Your task to perform on an android device: move a message to another label in the gmail app Image 0: 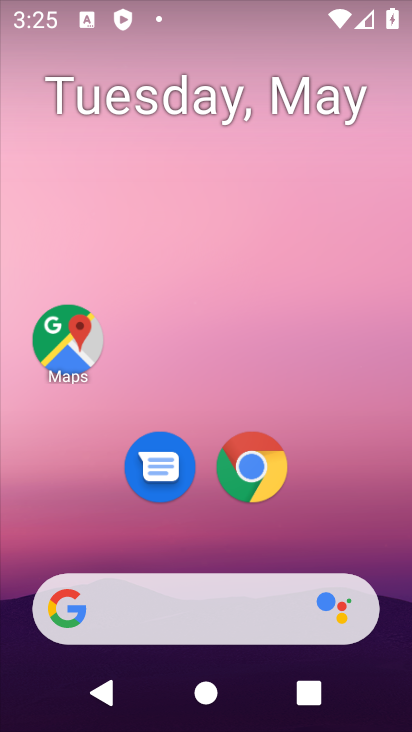
Step 0: task complete